Your task to perform on an android device: refresh tabs in the chrome app Image 0: 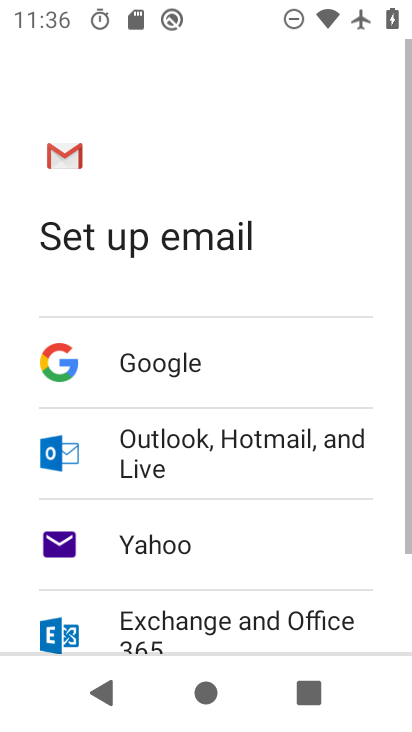
Step 0: press home button
Your task to perform on an android device: refresh tabs in the chrome app Image 1: 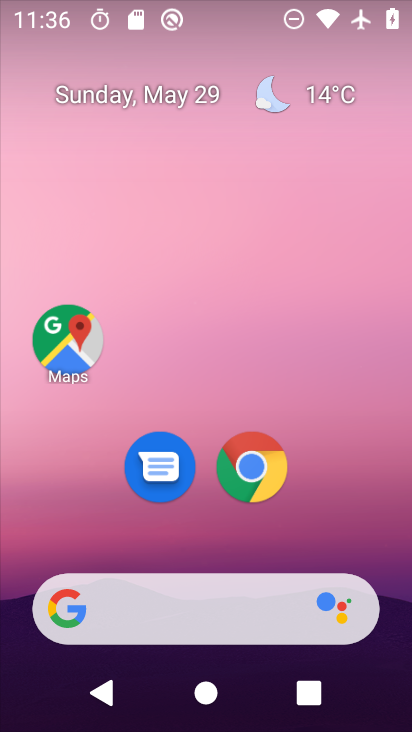
Step 1: click (267, 478)
Your task to perform on an android device: refresh tabs in the chrome app Image 2: 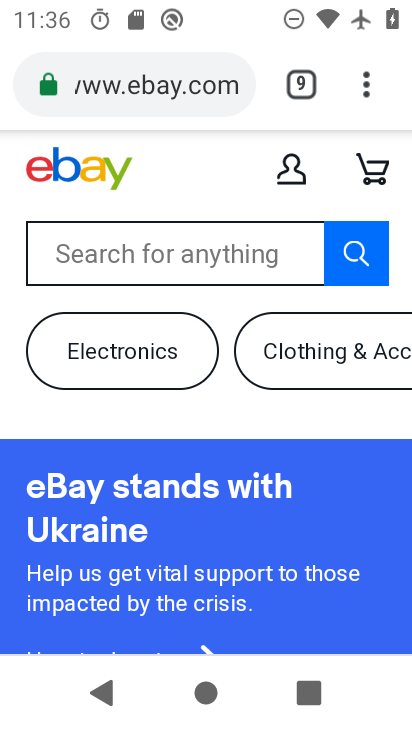
Step 2: click (365, 83)
Your task to perform on an android device: refresh tabs in the chrome app Image 3: 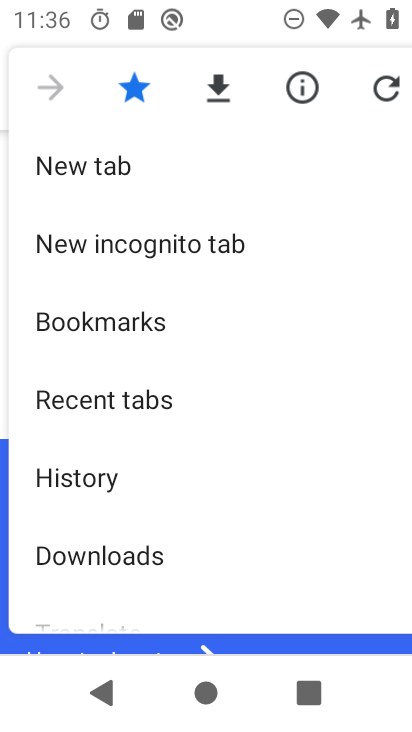
Step 3: click (375, 87)
Your task to perform on an android device: refresh tabs in the chrome app Image 4: 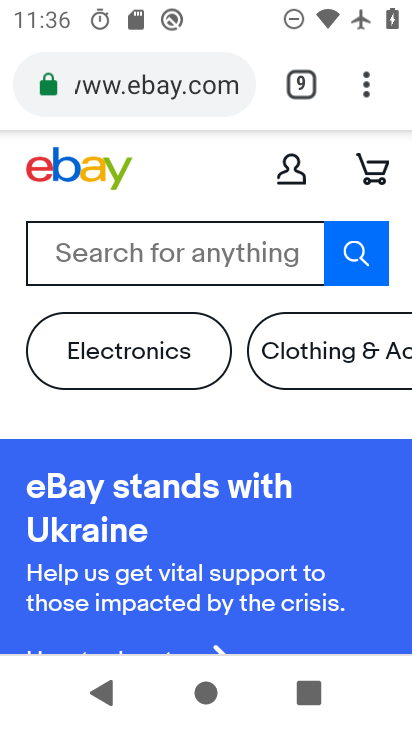
Step 4: task complete